Your task to perform on an android device: check google app version Image 0: 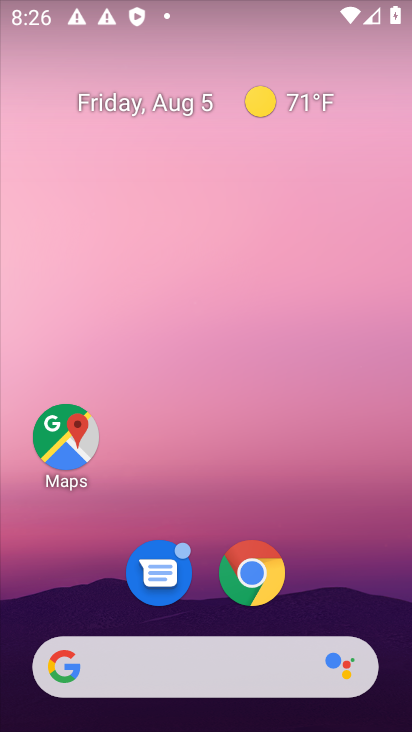
Step 0: press home button
Your task to perform on an android device: check google app version Image 1: 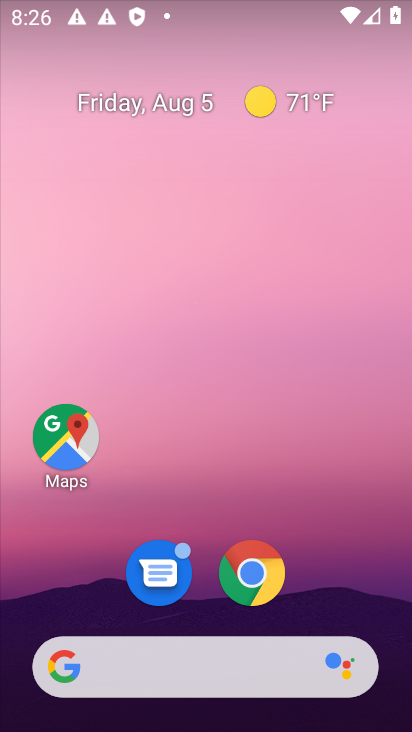
Step 1: drag from (196, 616) to (226, 134)
Your task to perform on an android device: check google app version Image 2: 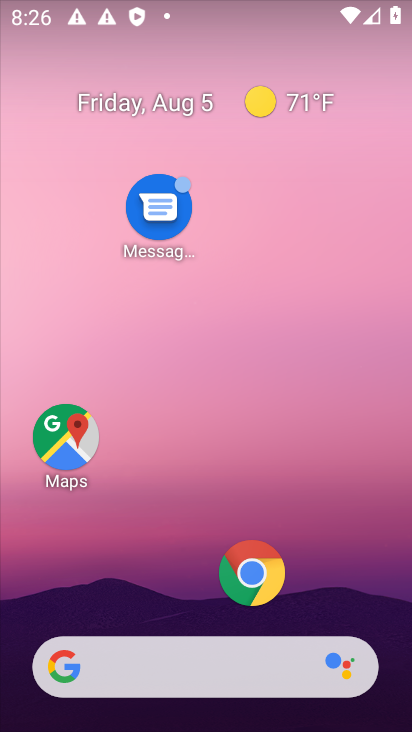
Step 2: drag from (331, 583) to (345, 92)
Your task to perform on an android device: check google app version Image 3: 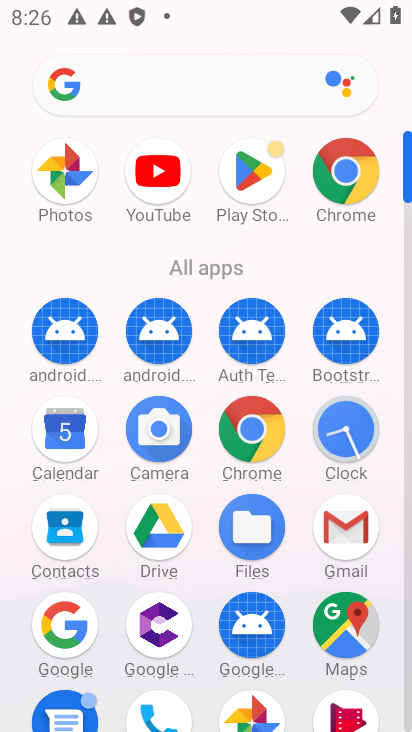
Step 3: click (64, 618)
Your task to perform on an android device: check google app version Image 4: 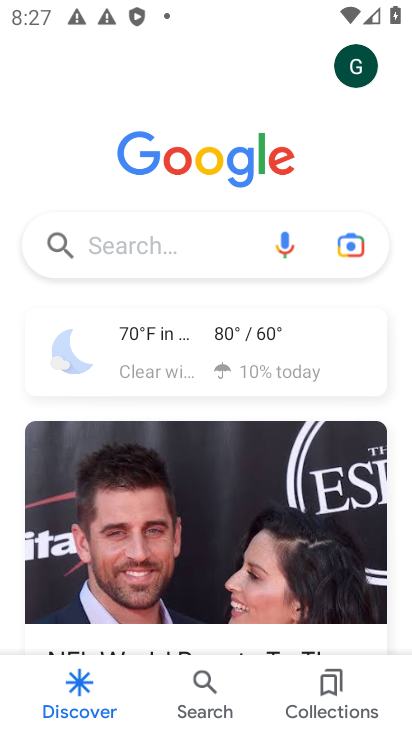
Step 4: click (358, 73)
Your task to perform on an android device: check google app version Image 5: 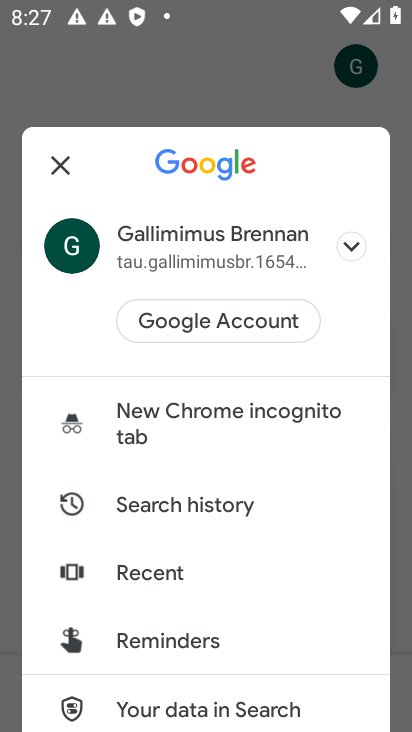
Step 5: drag from (261, 653) to (257, 206)
Your task to perform on an android device: check google app version Image 6: 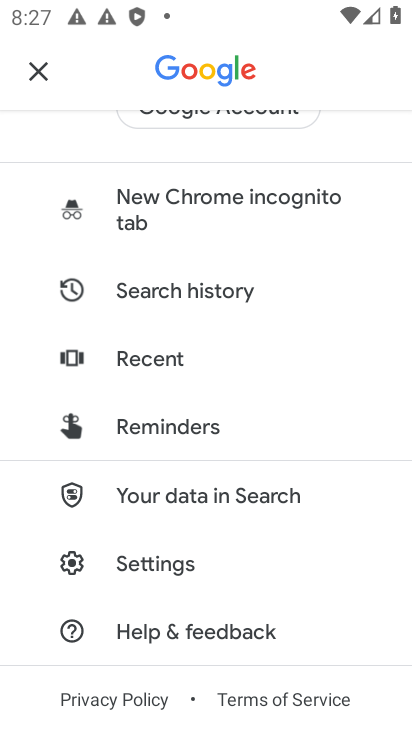
Step 6: click (175, 561)
Your task to perform on an android device: check google app version Image 7: 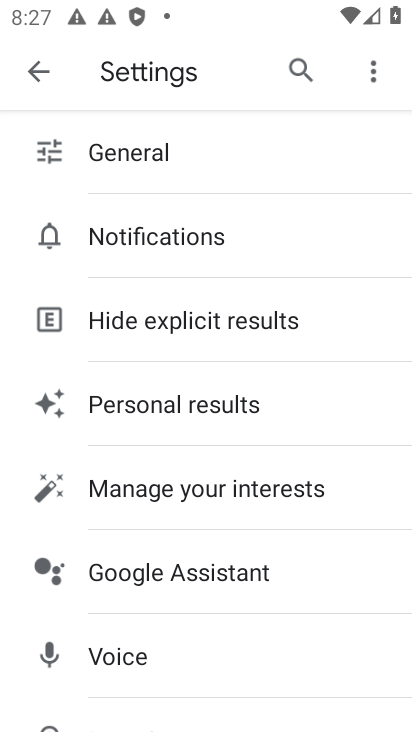
Step 7: drag from (222, 648) to (257, 282)
Your task to perform on an android device: check google app version Image 8: 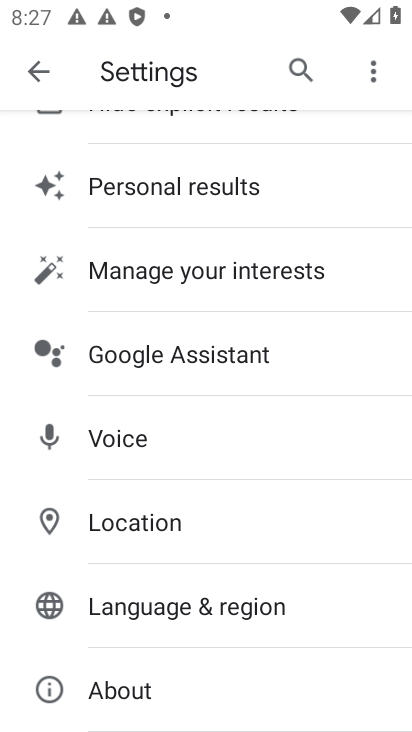
Step 8: click (177, 685)
Your task to perform on an android device: check google app version Image 9: 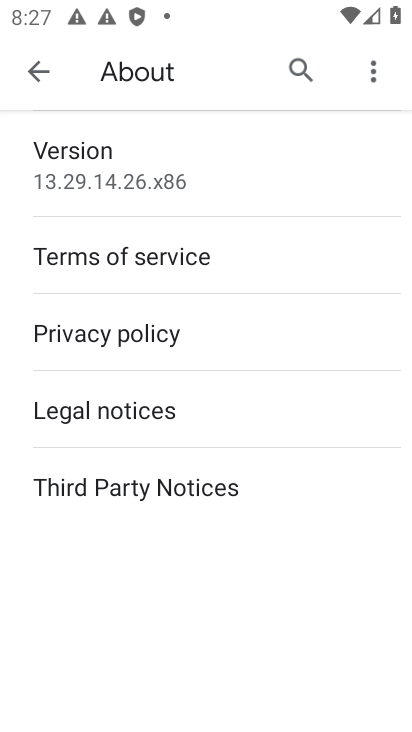
Step 9: click (163, 164)
Your task to perform on an android device: check google app version Image 10: 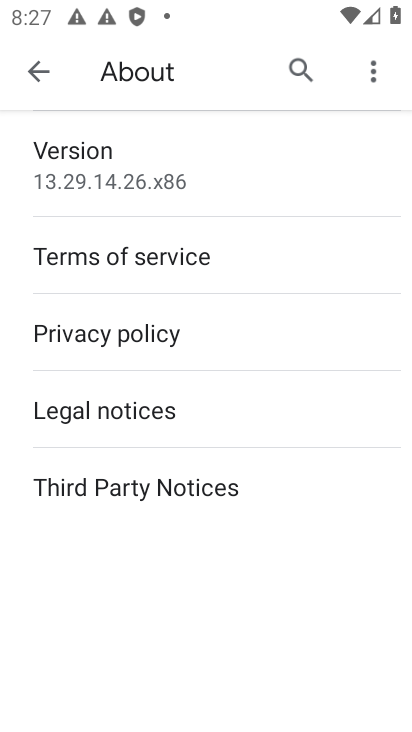
Step 10: task complete